Your task to perform on an android device: Open eBay Image 0: 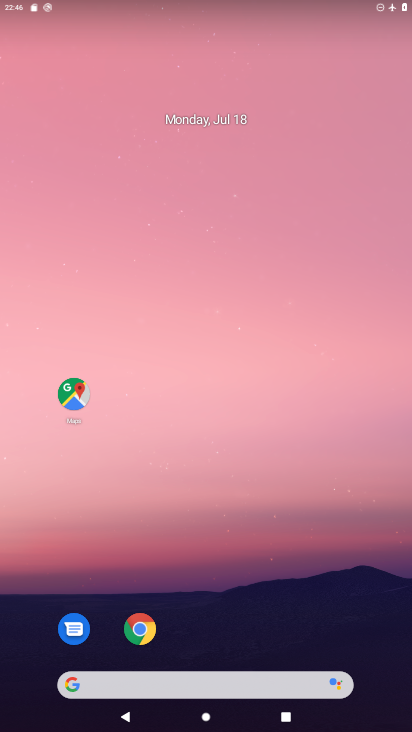
Step 0: drag from (315, 538) to (250, 140)
Your task to perform on an android device: Open eBay Image 1: 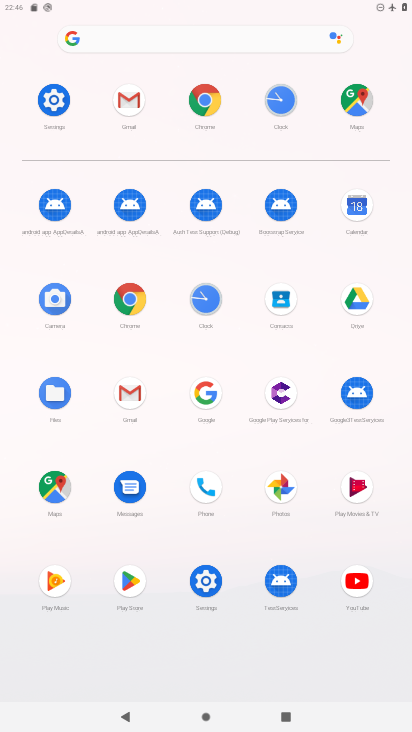
Step 1: click (212, 113)
Your task to perform on an android device: Open eBay Image 2: 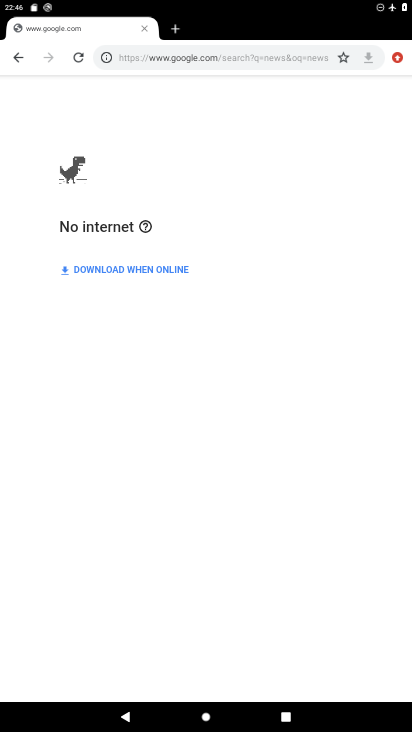
Step 2: click (229, 60)
Your task to perform on an android device: Open eBay Image 3: 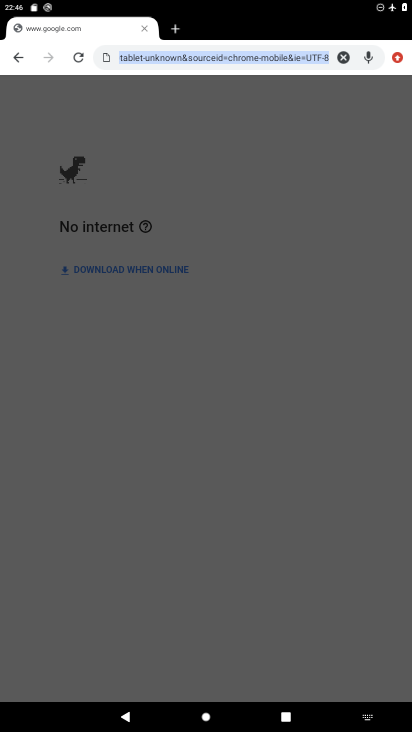
Step 3: type "ebay"
Your task to perform on an android device: Open eBay Image 4: 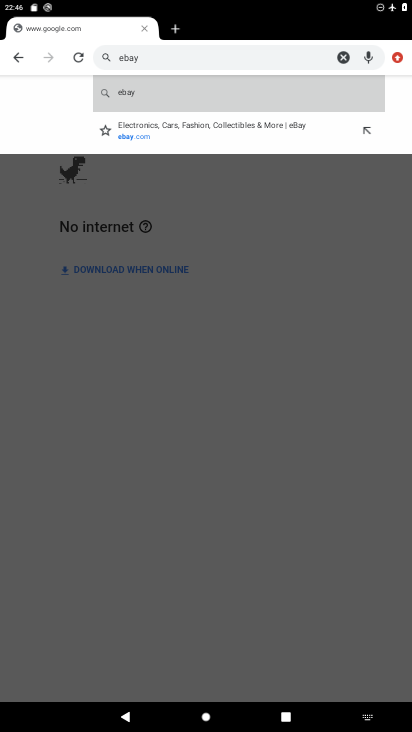
Step 4: click (194, 93)
Your task to perform on an android device: Open eBay Image 5: 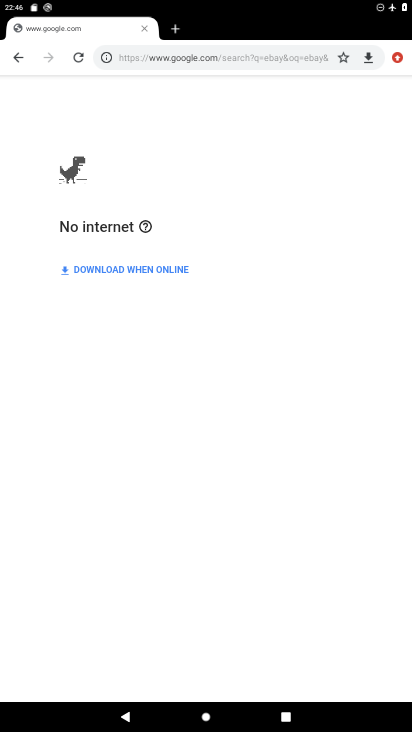
Step 5: task complete